Your task to perform on an android device: Check the weather Image 0: 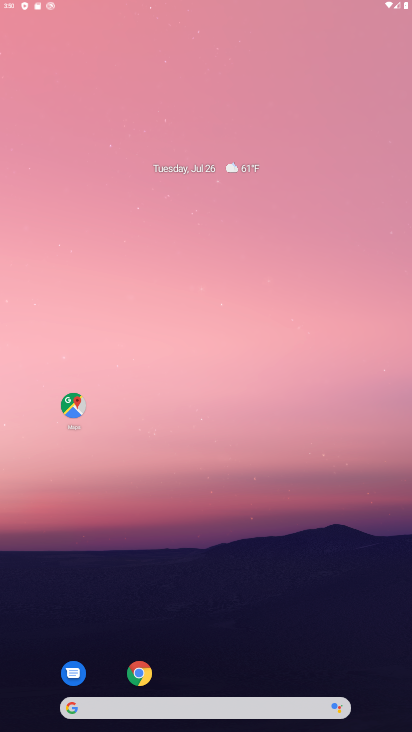
Step 0: press home button
Your task to perform on an android device: Check the weather Image 1: 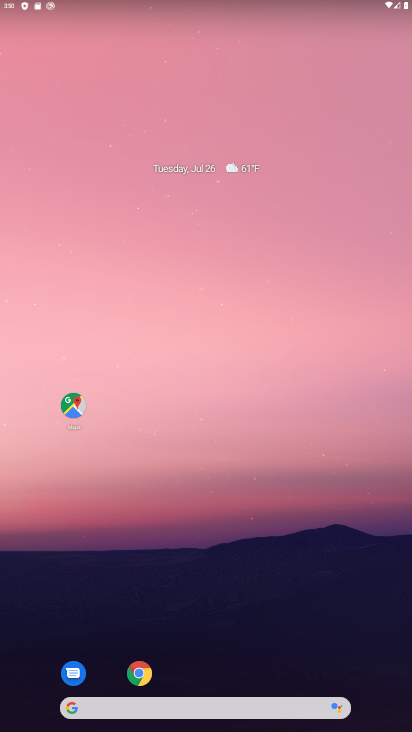
Step 1: click (159, 701)
Your task to perform on an android device: Check the weather Image 2: 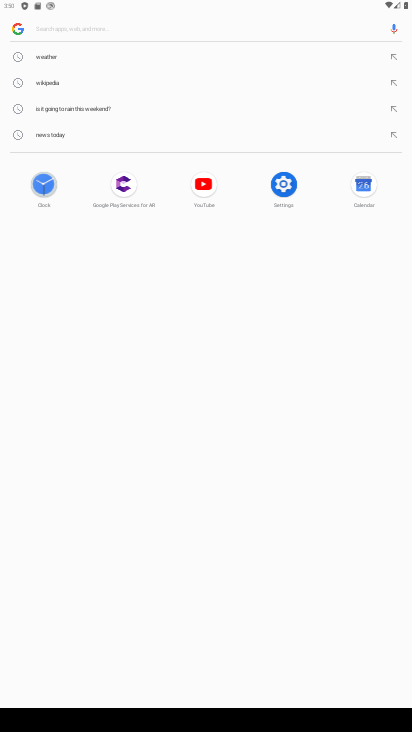
Step 2: click (65, 55)
Your task to perform on an android device: Check the weather Image 3: 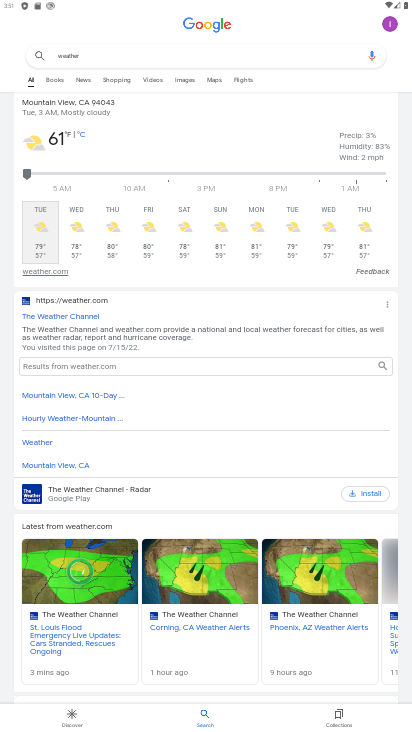
Step 3: task complete